Your task to perform on an android device: What is the recent news? Image 0: 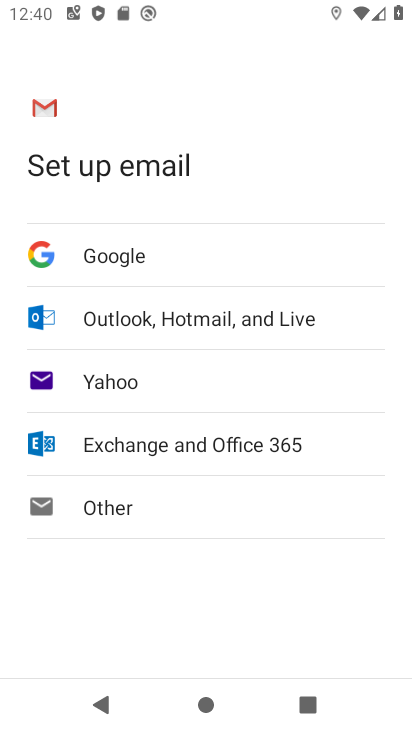
Step 0: press home button
Your task to perform on an android device: What is the recent news? Image 1: 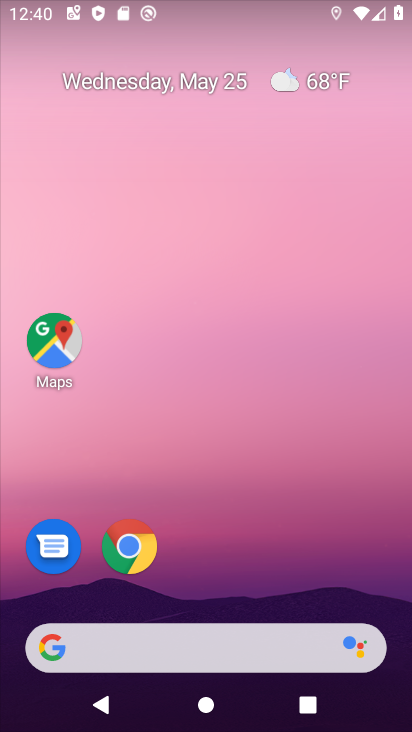
Step 1: click (251, 651)
Your task to perform on an android device: What is the recent news? Image 2: 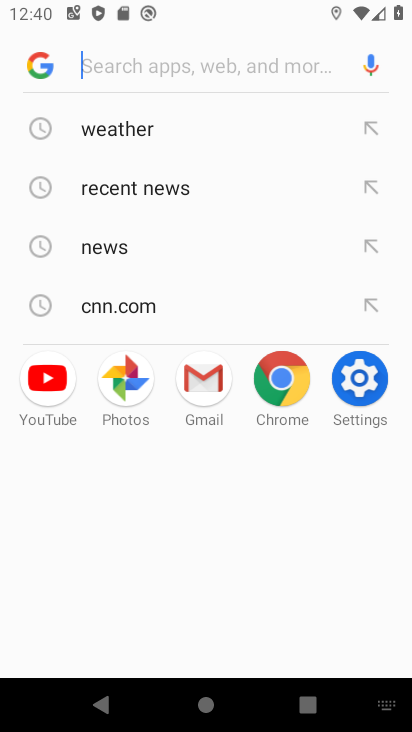
Step 2: click (159, 201)
Your task to perform on an android device: What is the recent news? Image 3: 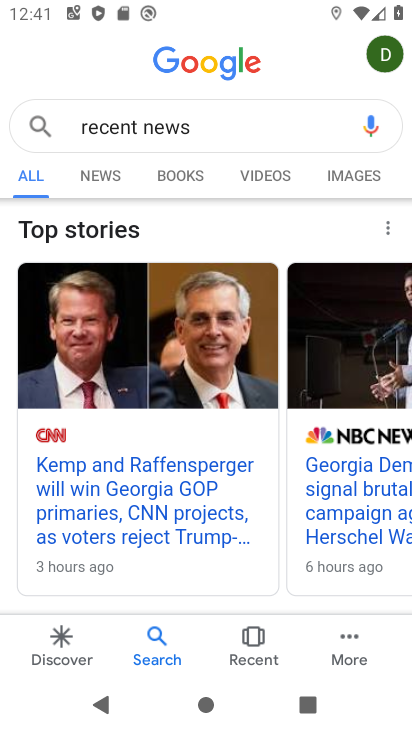
Step 3: task complete